Your task to perform on an android device: Search for pizza restaurants on Maps Image 0: 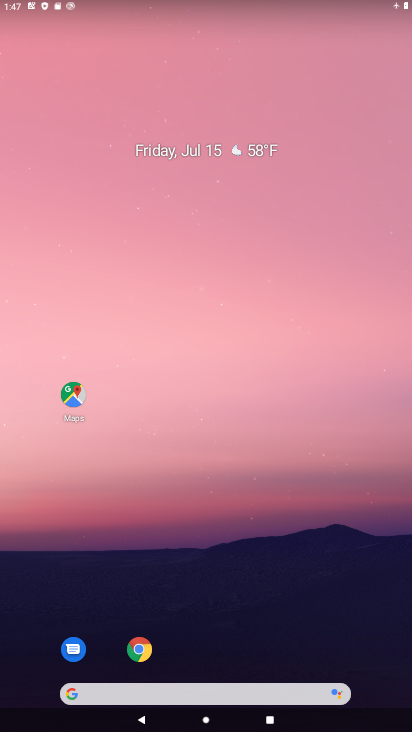
Step 0: drag from (337, 673) to (272, 0)
Your task to perform on an android device: Search for pizza restaurants on Maps Image 1: 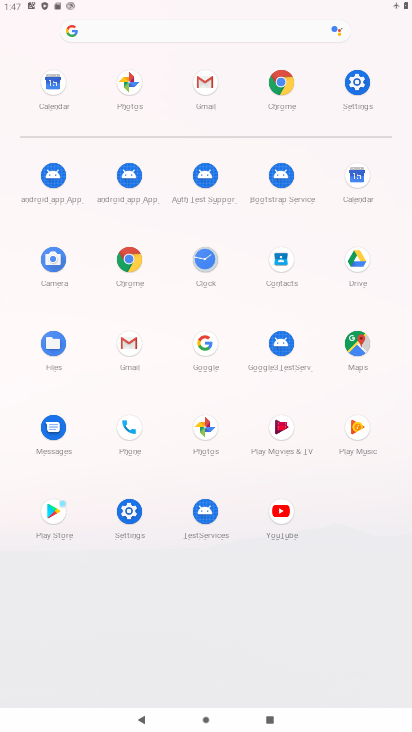
Step 1: click (357, 341)
Your task to perform on an android device: Search for pizza restaurants on Maps Image 2: 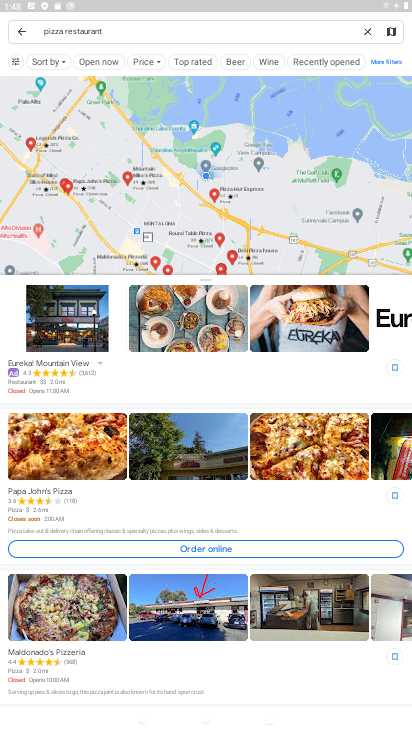
Step 2: task complete